Your task to perform on an android device: find photos in the google photos app Image 0: 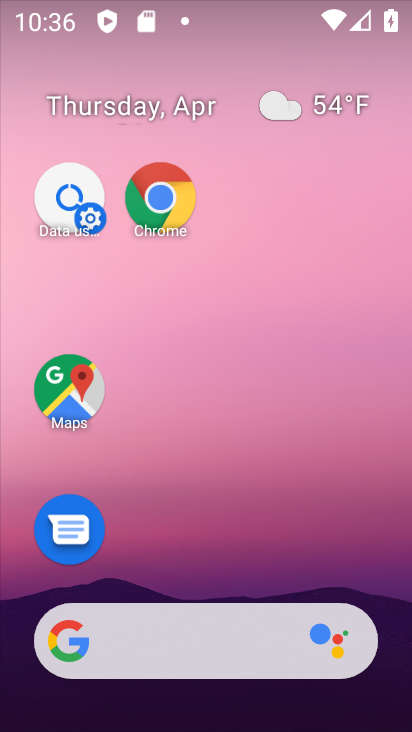
Step 0: drag from (218, 586) to (197, 40)
Your task to perform on an android device: find photos in the google photos app Image 1: 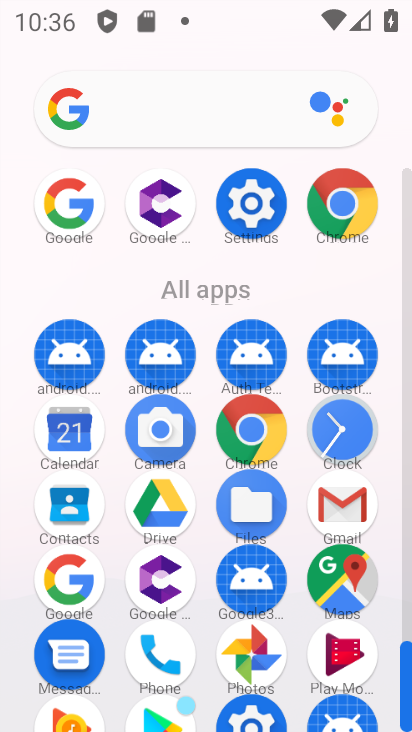
Step 1: click (242, 667)
Your task to perform on an android device: find photos in the google photos app Image 2: 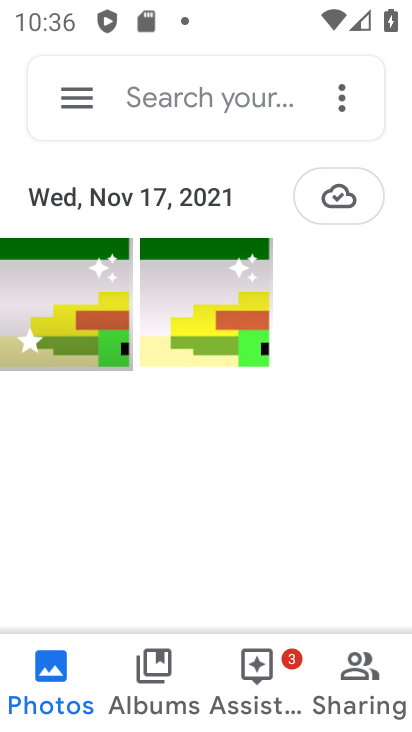
Step 2: task complete